Your task to perform on an android device: Open Google Maps Image 0: 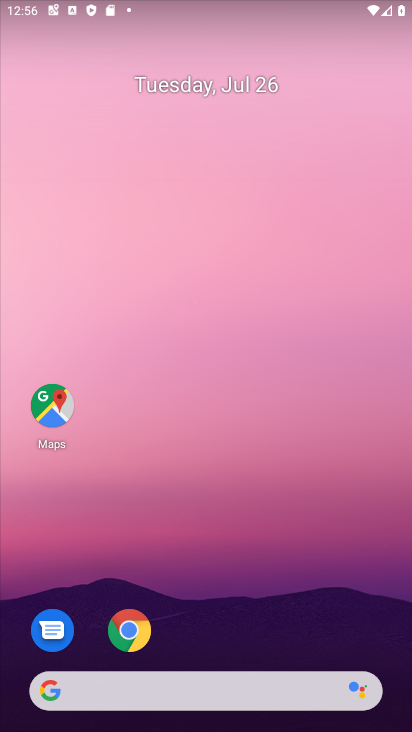
Step 0: click (52, 405)
Your task to perform on an android device: Open Google Maps Image 1: 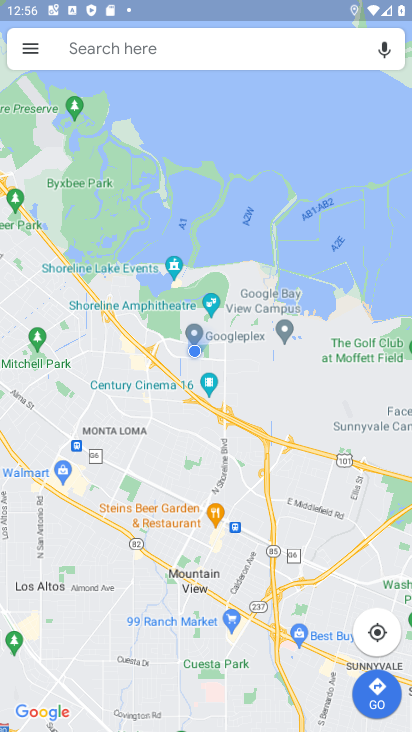
Step 1: drag from (244, 383) to (288, 262)
Your task to perform on an android device: Open Google Maps Image 2: 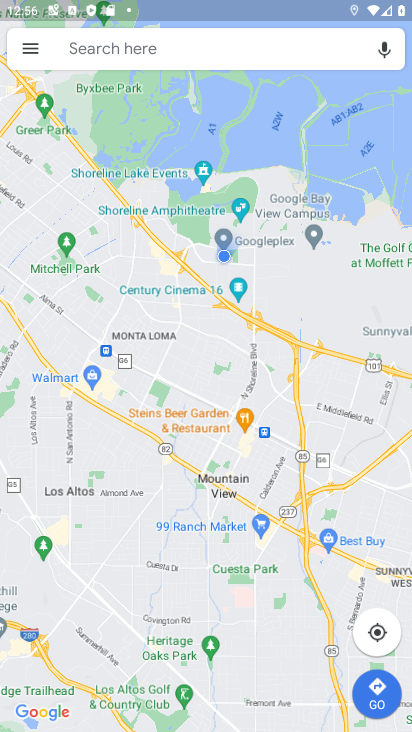
Step 2: click (288, 262)
Your task to perform on an android device: Open Google Maps Image 3: 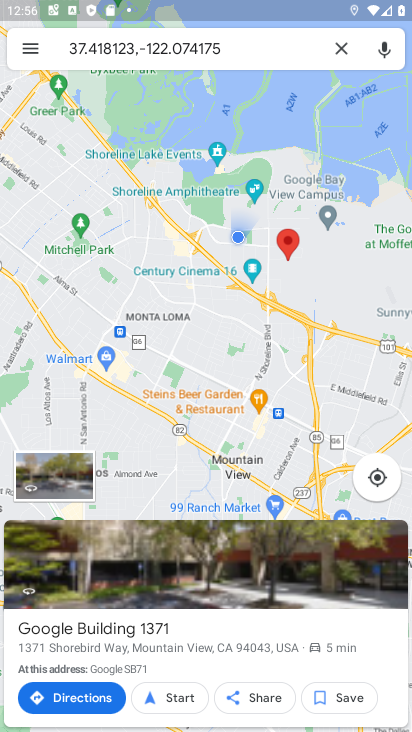
Step 3: task complete